Your task to perform on an android device: change your default location settings in chrome Image 0: 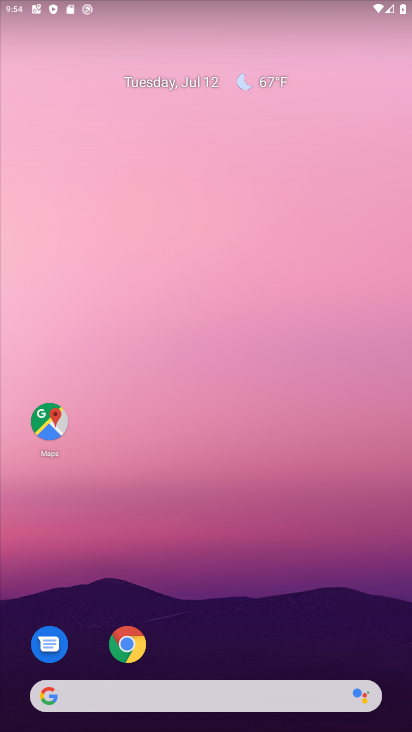
Step 0: drag from (196, 610) to (289, 93)
Your task to perform on an android device: change your default location settings in chrome Image 1: 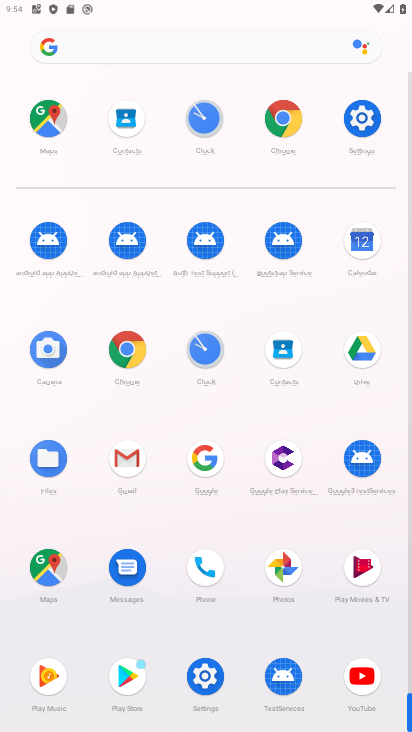
Step 1: click (123, 347)
Your task to perform on an android device: change your default location settings in chrome Image 2: 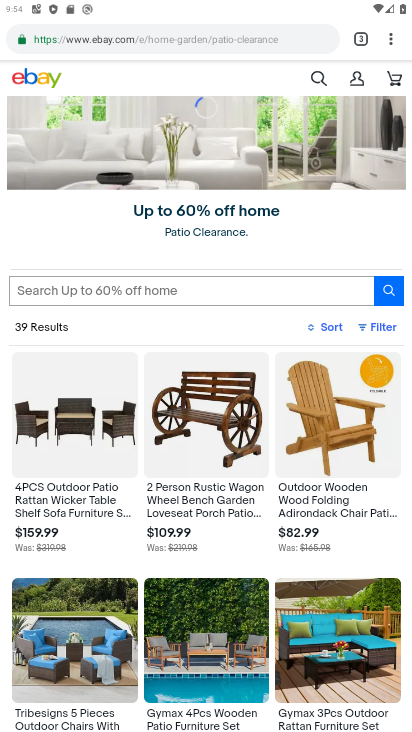
Step 2: click (384, 30)
Your task to perform on an android device: change your default location settings in chrome Image 3: 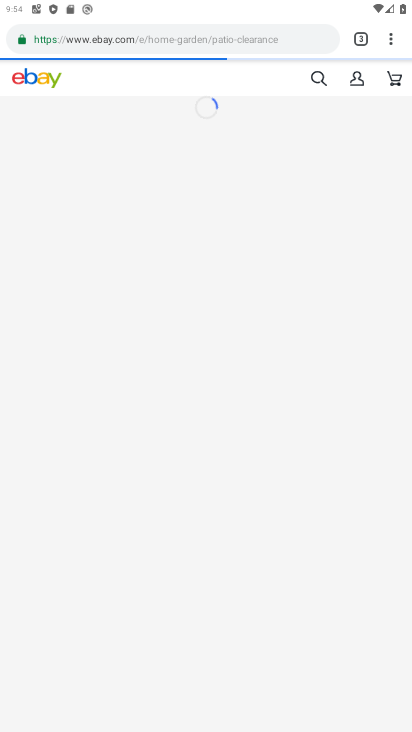
Step 3: click (393, 36)
Your task to perform on an android device: change your default location settings in chrome Image 4: 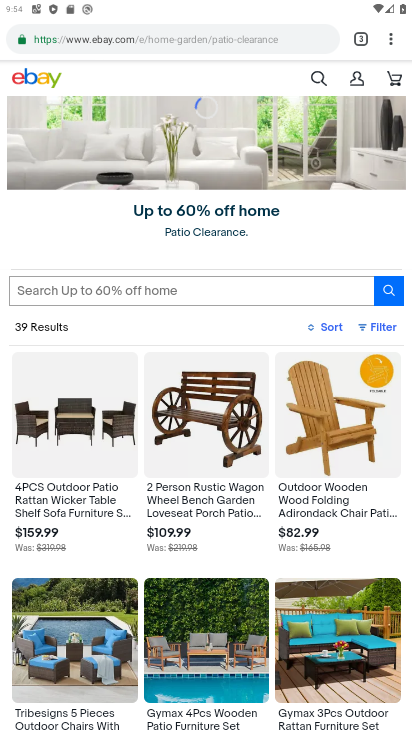
Step 4: drag from (393, 36) to (272, 511)
Your task to perform on an android device: change your default location settings in chrome Image 5: 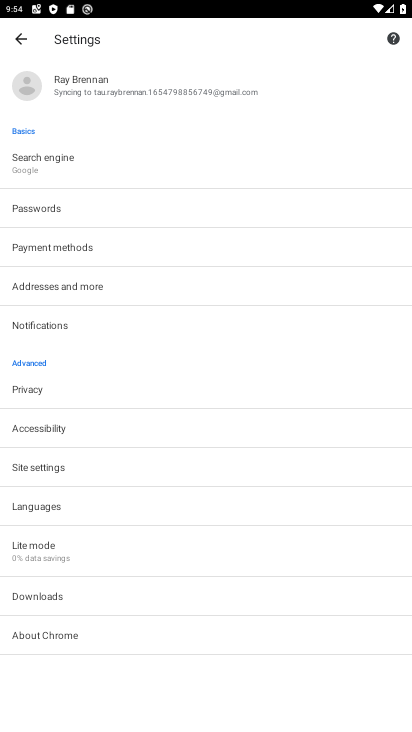
Step 5: click (68, 461)
Your task to perform on an android device: change your default location settings in chrome Image 6: 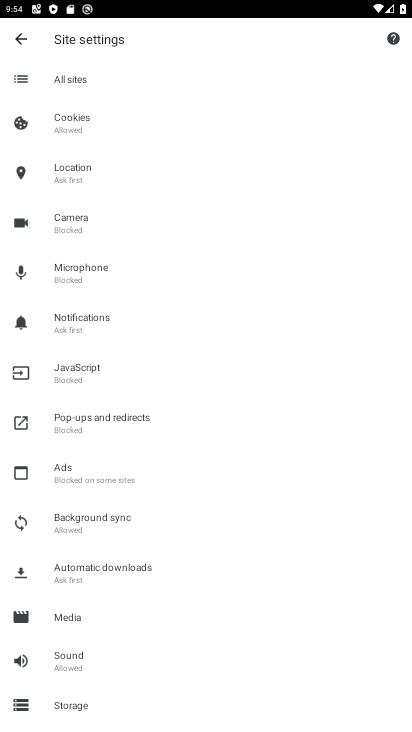
Step 6: click (108, 162)
Your task to perform on an android device: change your default location settings in chrome Image 7: 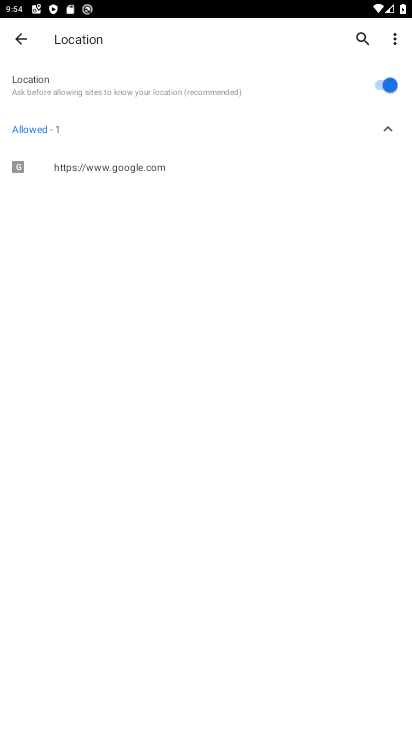
Step 7: task complete